Your task to perform on an android device: turn on priority inbox in the gmail app Image 0: 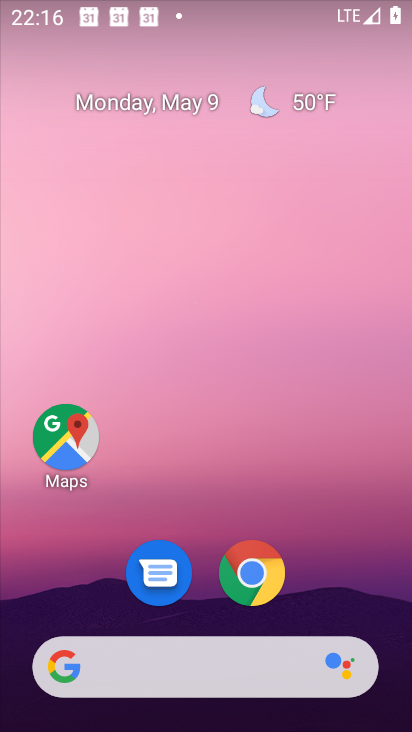
Step 0: drag from (344, 588) to (305, 105)
Your task to perform on an android device: turn on priority inbox in the gmail app Image 1: 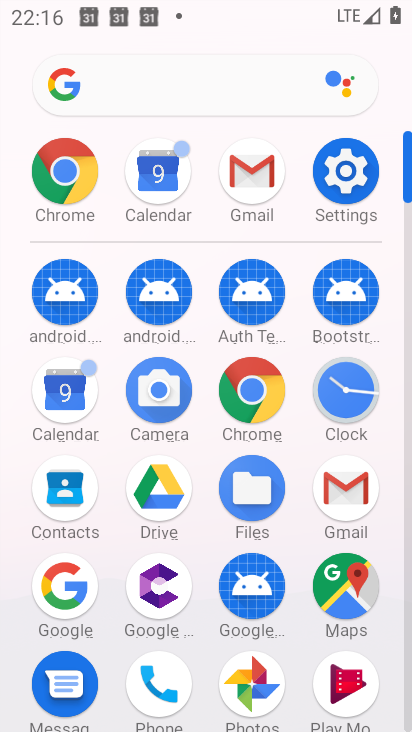
Step 1: click (337, 497)
Your task to perform on an android device: turn on priority inbox in the gmail app Image 2: 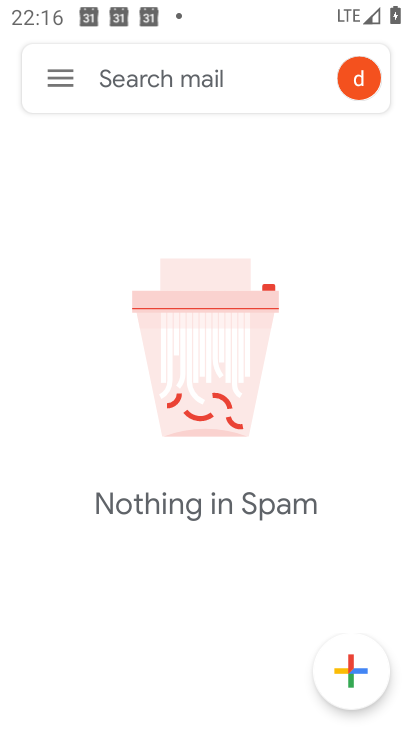
Step 2: click (57, 72)
Your task to perform on an android device: turn on priority inbox in the gmail app Image 3: 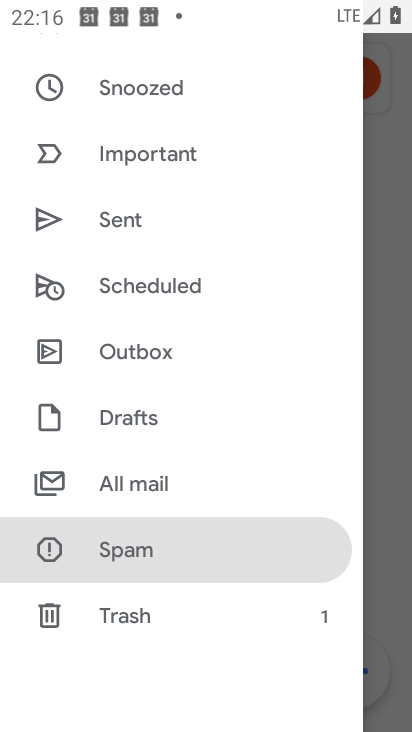
Step 3: drag from (195, 577) to (206, 149)
Your task to perform on an android device: turn on priority inbox in the gmail app Image 4: 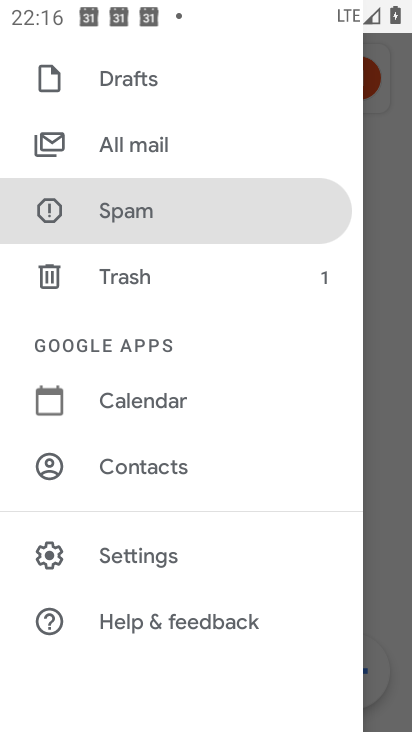
Step 4: click (138, 547)
Your task to perform on an android device: turn on priority inbox in the gmail app Image 5: 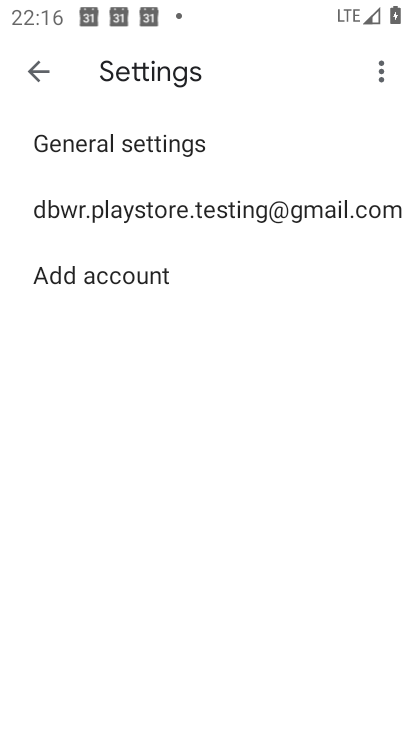
Step 5: click (162, 202)
Your task to perform on an android device: turn on priority inbox in the gmail app Image 6: 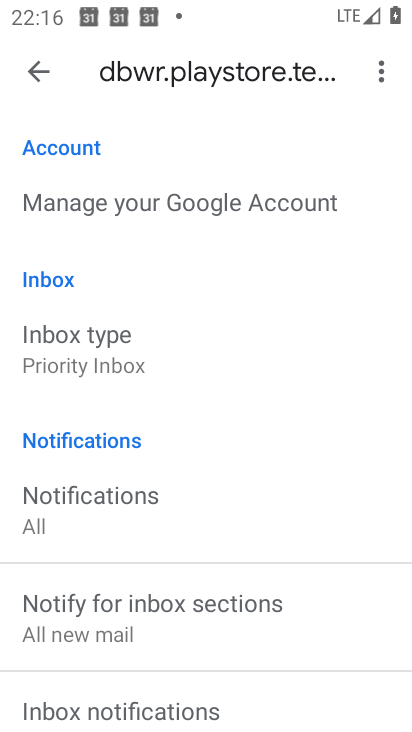
Step 6: click (89, 349)
Your task to perform on an android device: turn on priority inbox in the gmail app Image 7: 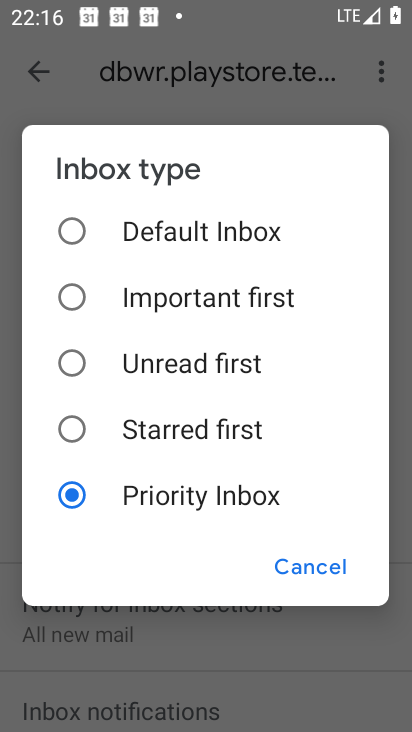
Step 7: task complete